Your task to perform on an android device: turn off notifications settings in the gmail app Image 0: 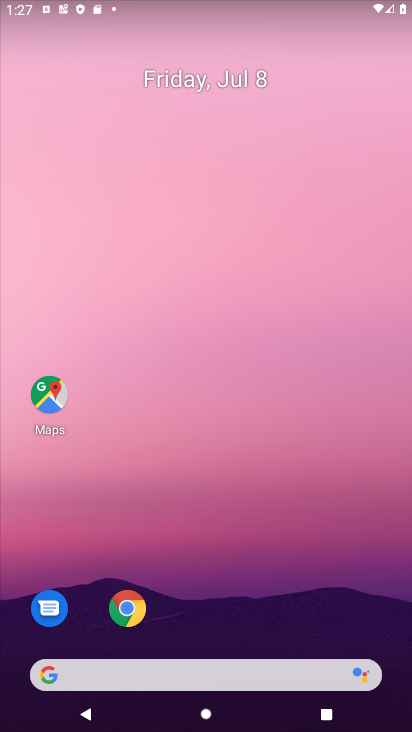
Step 0: drag from (377, 622) to (325, 79)
Your task to perform on an android device: turn off notifications settings in the gmail app Image 1: 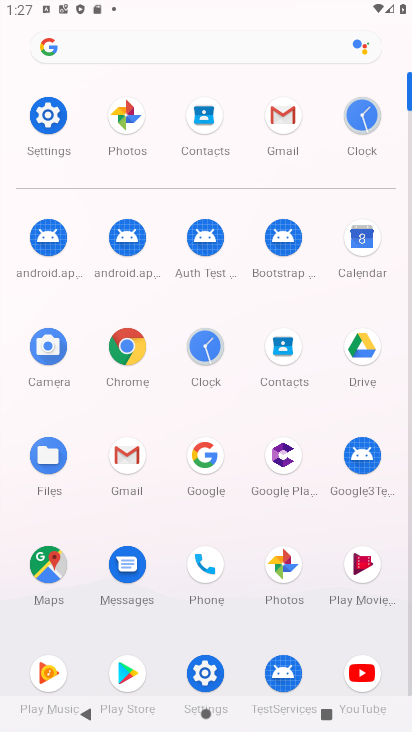
Step 1: click (126, 457)
Your task to perform on an android device: turn off notifications settings in the gmail app Image 2: 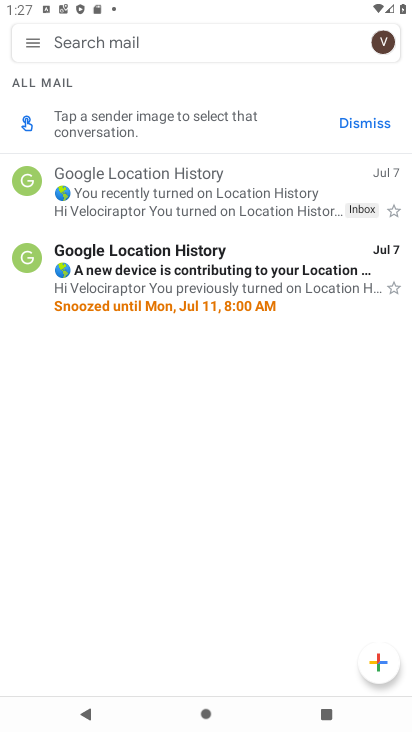
Step 2: click (30, 42)
Your task to perform on an android device: turn off notifications settings in the gmail app Image 3: 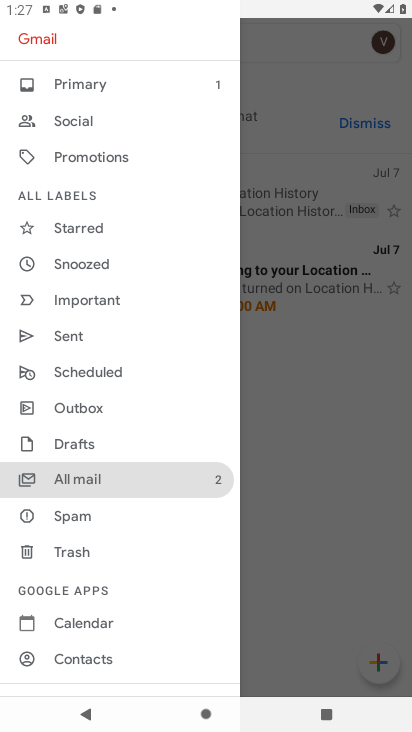
Step 3: drag from (164, 621) to (150, 202)
Your task to perform on an android device: turn off notifications settings in the gmail app Image 4: 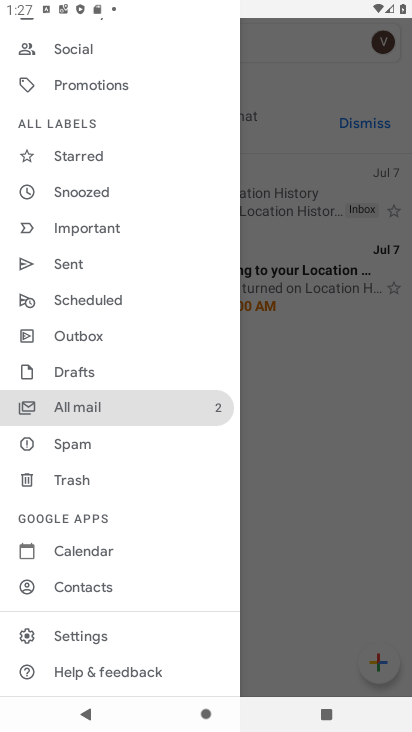
Step 4: click (92, 637)
Your task to perform on an android device: turn off notifications settings in the gmail app Image 5: 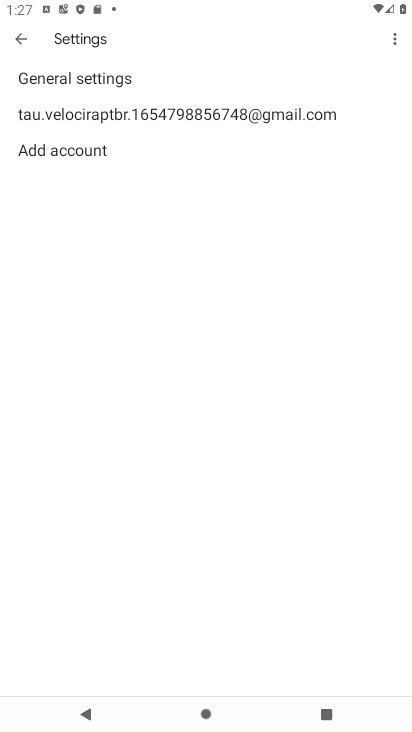
Step 5: click (137, 117)
Your task to perform on an android device: turn off notifications settings in the gmail app Image 6: 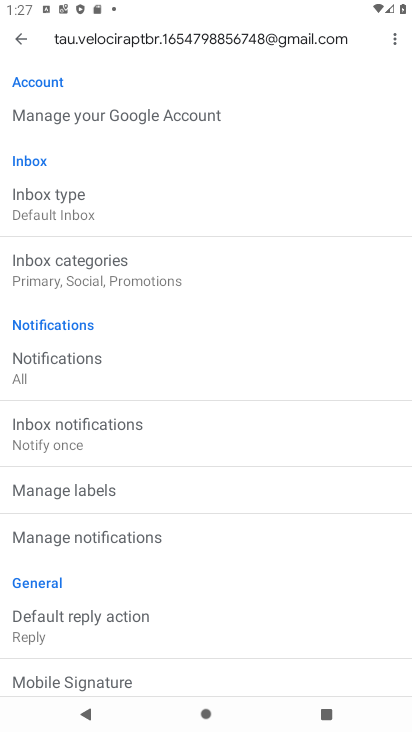
Step 6: click (109, 538)
Your task to perform on an android device: turn off notifications settings in the gmail app Image 7: 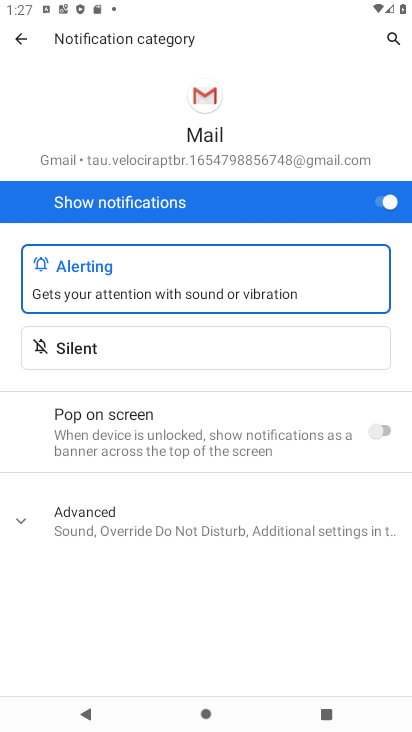
Step 7: click (380, 202)
Your task to perform on an android device: turn off notifications settings in the gmail app Image 8: 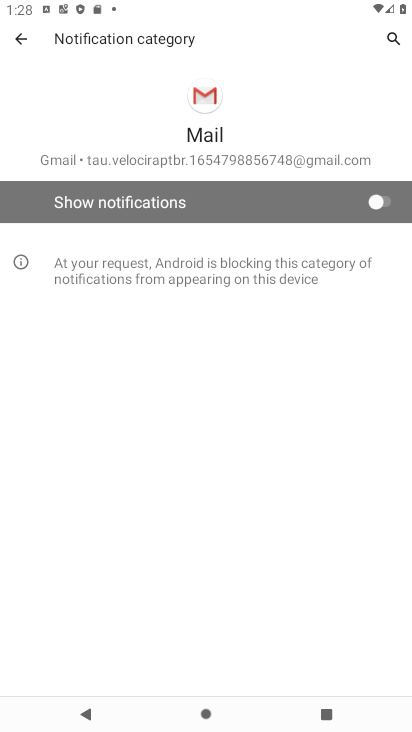
Step 8: task complete